Your task to perform on an android device: Show me the alarms in the clock app Image 0: 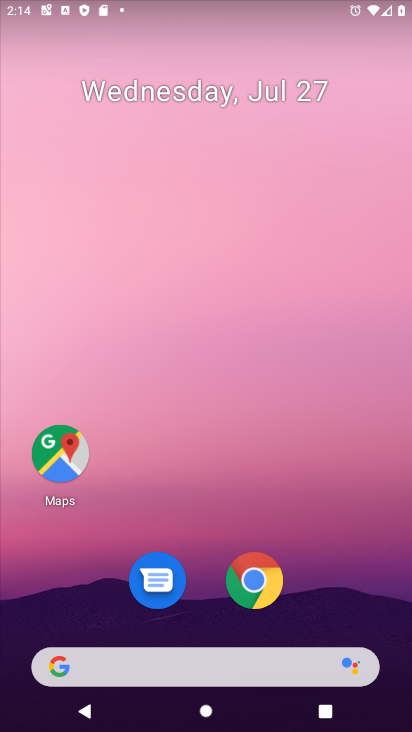
Step 0: drag from (218, 629) to (166, 212)
Your task to perform on an android device: Show me the alarms in the clock app Image 1: 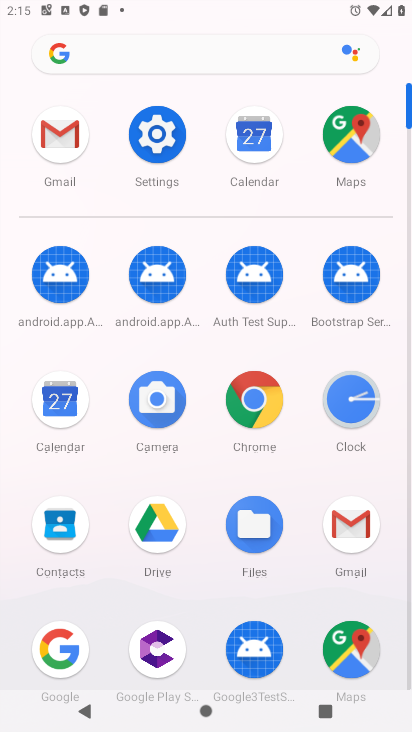
Step 1: click (334, 413)
Your task to perform on an android device: Show me the alarms in the clock app Image 2: 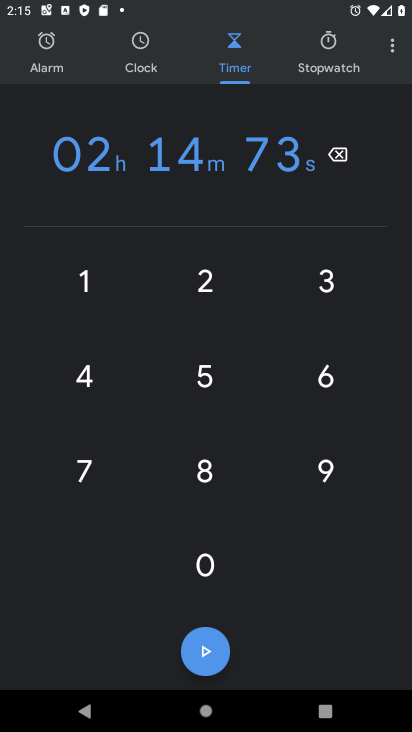
Step 2: click (58, 72)
Your task to perform on an android device: Show me the alarms in the clock app Image 3: 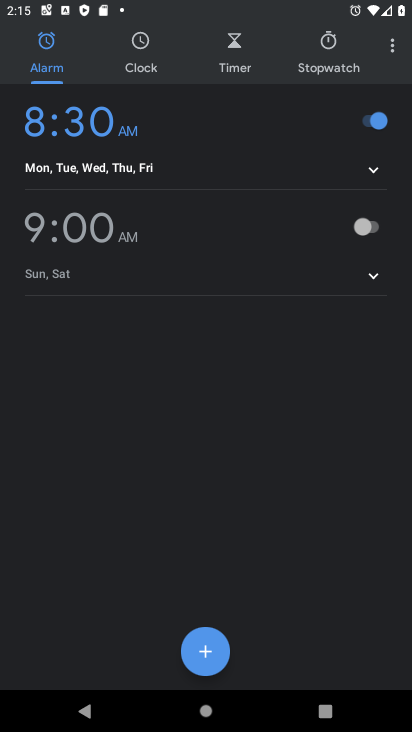
Step 3: task complete